Your task to perform on an android device: change alarm snooze length Image 0: 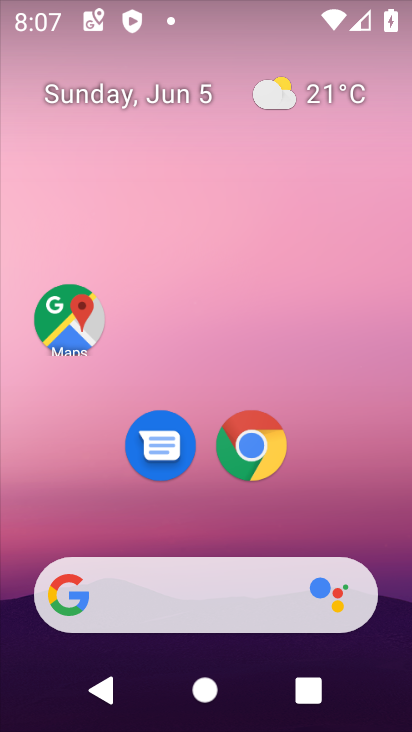
Step 0: drag from (342, 500) to (345, 137)
Your task to perform on an android device: change alarm snooze length Image 1: 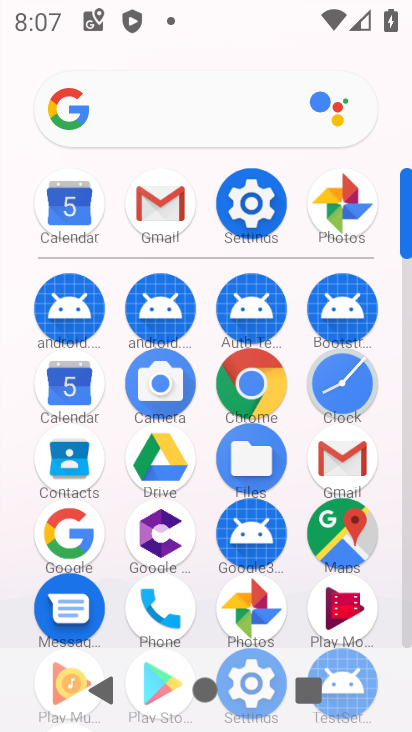
Step 1: click (340, 357)
Your task to perform on an android device: change alarm snooze length Image 2: 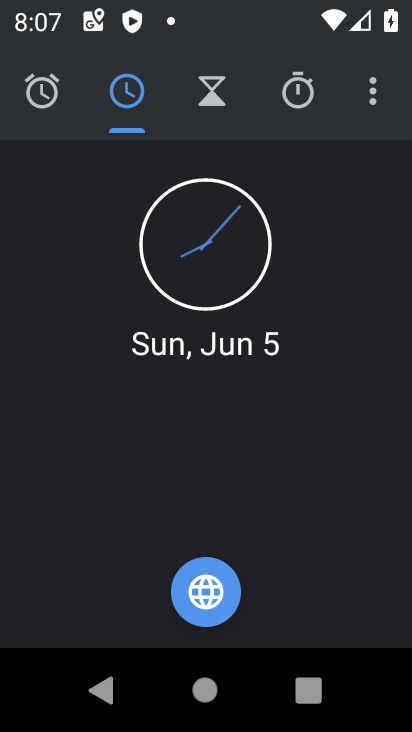
Step 2: click (370, 87)
Your task to perform on an android device: change alarm snooze length Image 3: 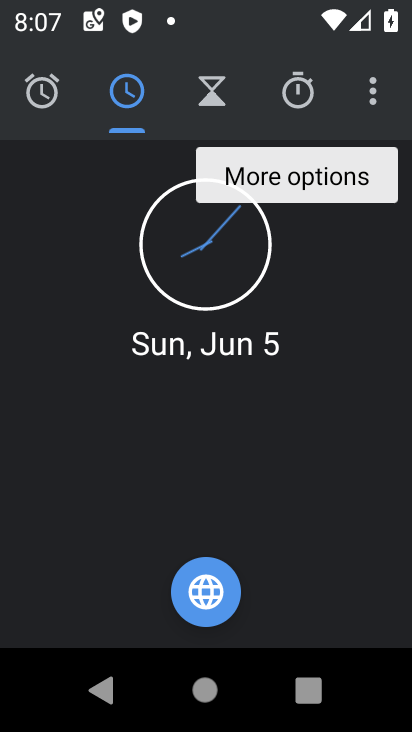
Step 3: click (369, 87)
Your task to perform on an android device: change alarm snooze length Image 4: 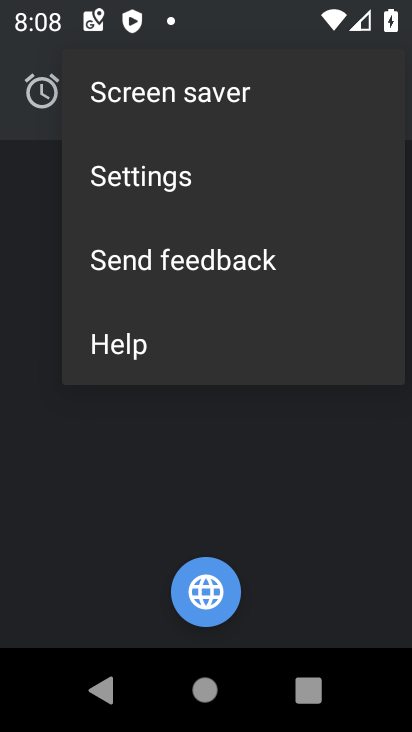
Step 4: click (152, 172)
Your task to perform on an android device: change alarm snooze length Image 5: 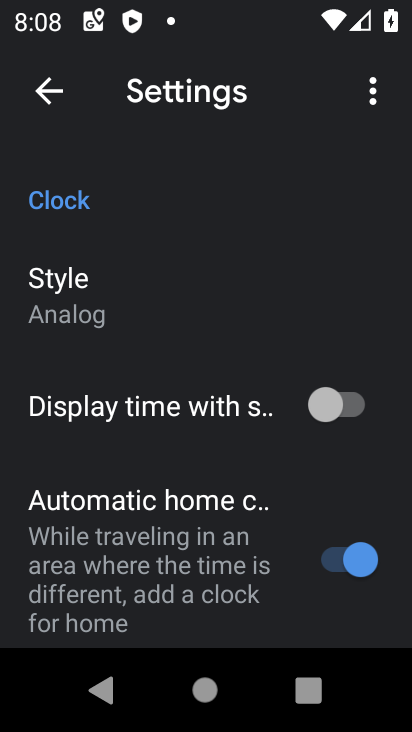
Step 5: drag from (115, 570) to (143, 69)
Your task to perform on an android device: change alarm snooze length Image 6: 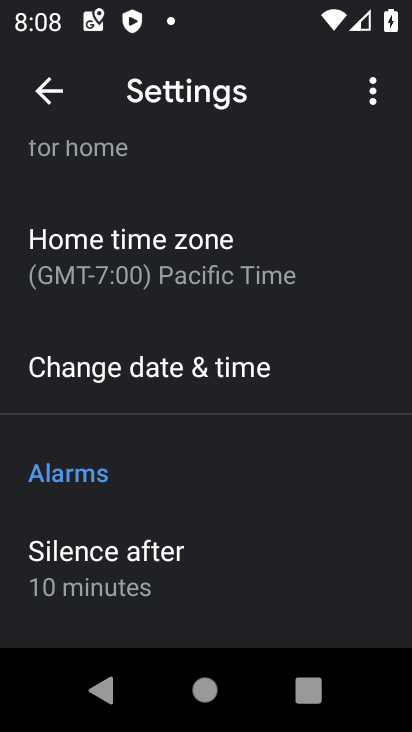
Step 6: drag from (192, 461) to (194, 137)
Your task to perform on an android device: change alarm snooze length Image 7: 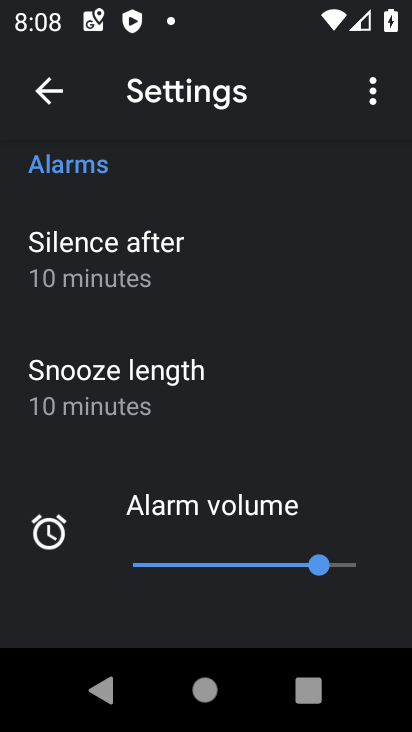
Step 7: click (154, 394)
Your task to perform on an android device: change alarm snooze length Image 8: 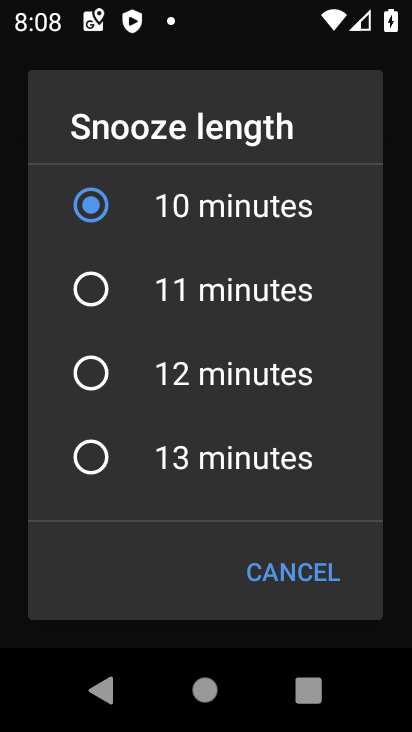
Step 8: click (153, 383)
Your task to perform on an android device: change alarm snooze length Image 9: 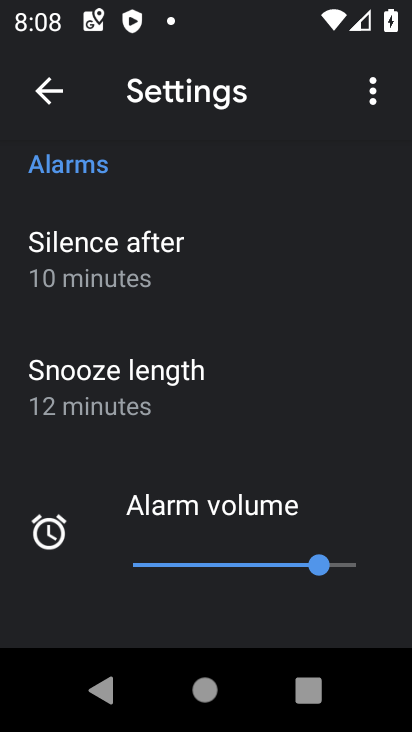
Step 9: task complete